Your task to perform on an android device: manage bookmarks in the chrome app Image 0: 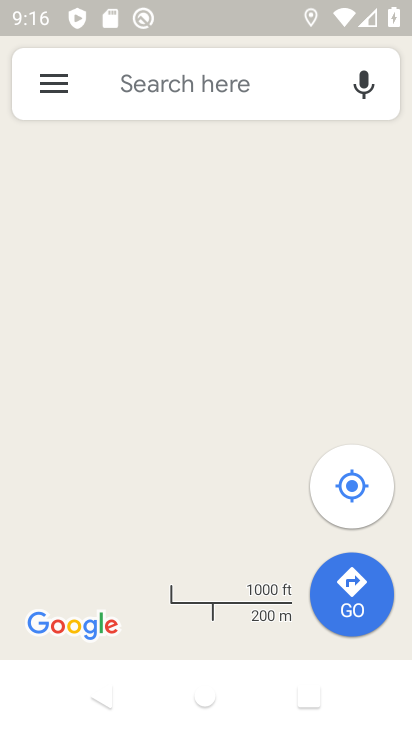
Step 0: press home button
Your task to perform on an android device: manage bookmarks in the chrome app Image 1: 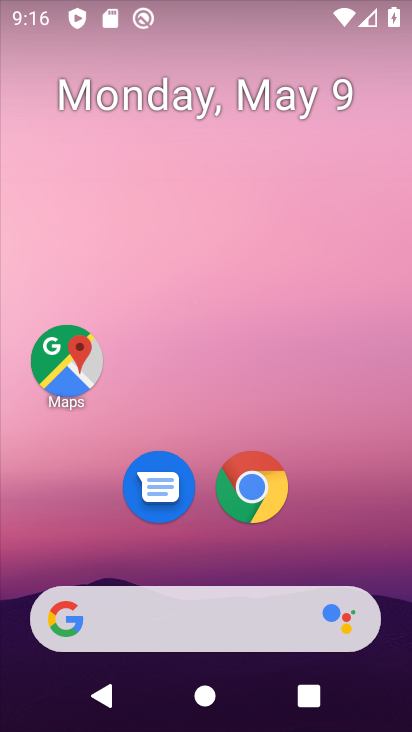
Step 1: click (252, 478)
Your task to perform on an android device: manage bookmarks in the chrome app Image 2: 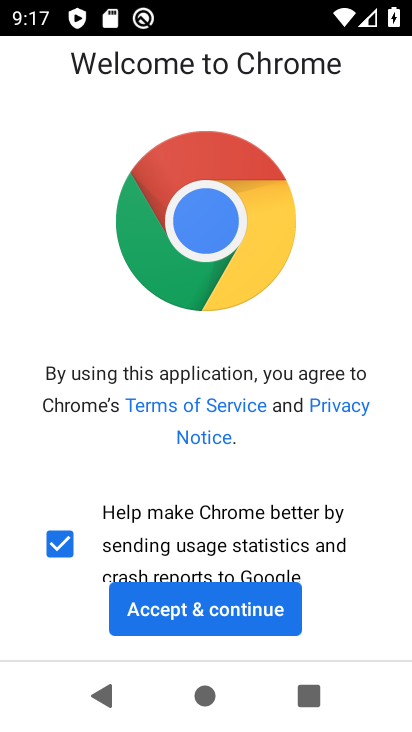
Step 2: click (146, 597)
Your task to perform on an android device: manage bookmarks in the chrome app Image 3: 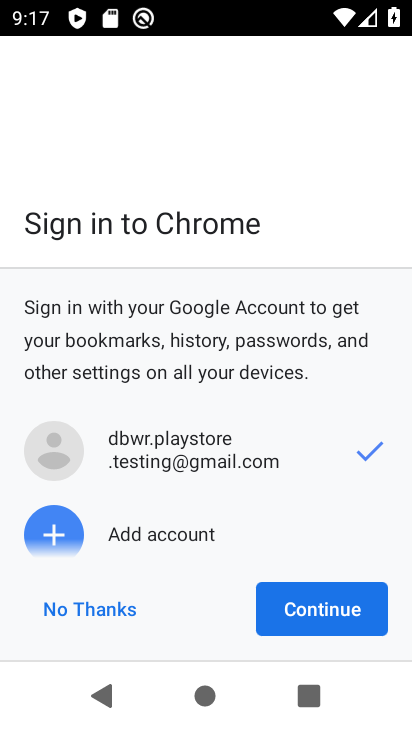
Step 3: click (61, 604)
Your task to perform on an android device: manage bookmarks in the chrome app Image 4: 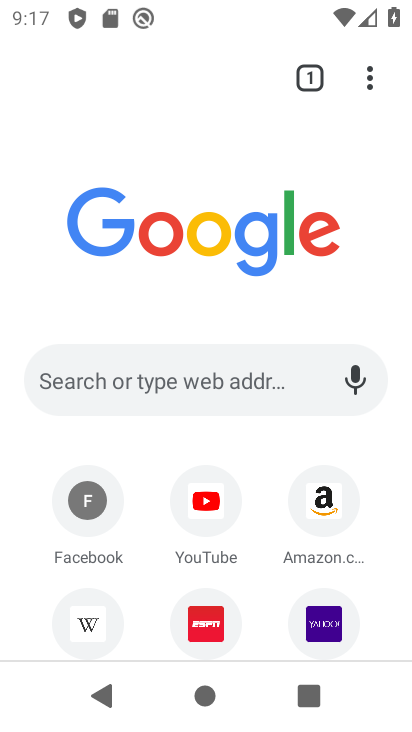
Step 4: click (359, 74)
Your task to perform on an android device: manage bookmarks in the chrome app Image 5: 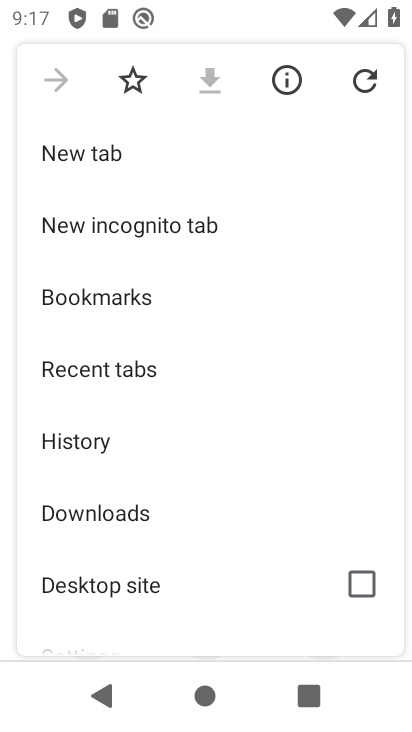
Step 5: click (109, 296)
Your task to perform on an android device: manage bookmarks in the chrome app Image 6: 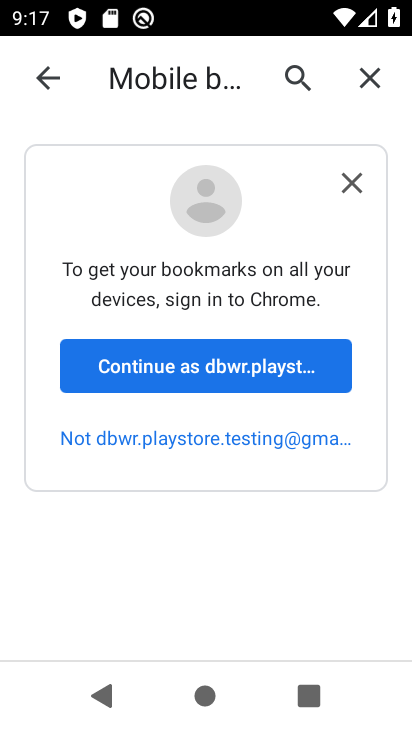
Step 6: click (342, 182)
Your task to perform on an android device: manage bookmarks in the chrome app Image 7: 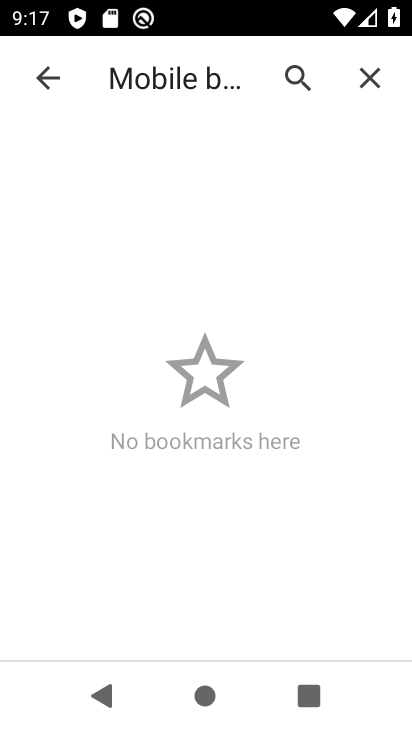
Step 7: task complete